Your task to perform on an android device: install app "Google Play Music" Image 0: 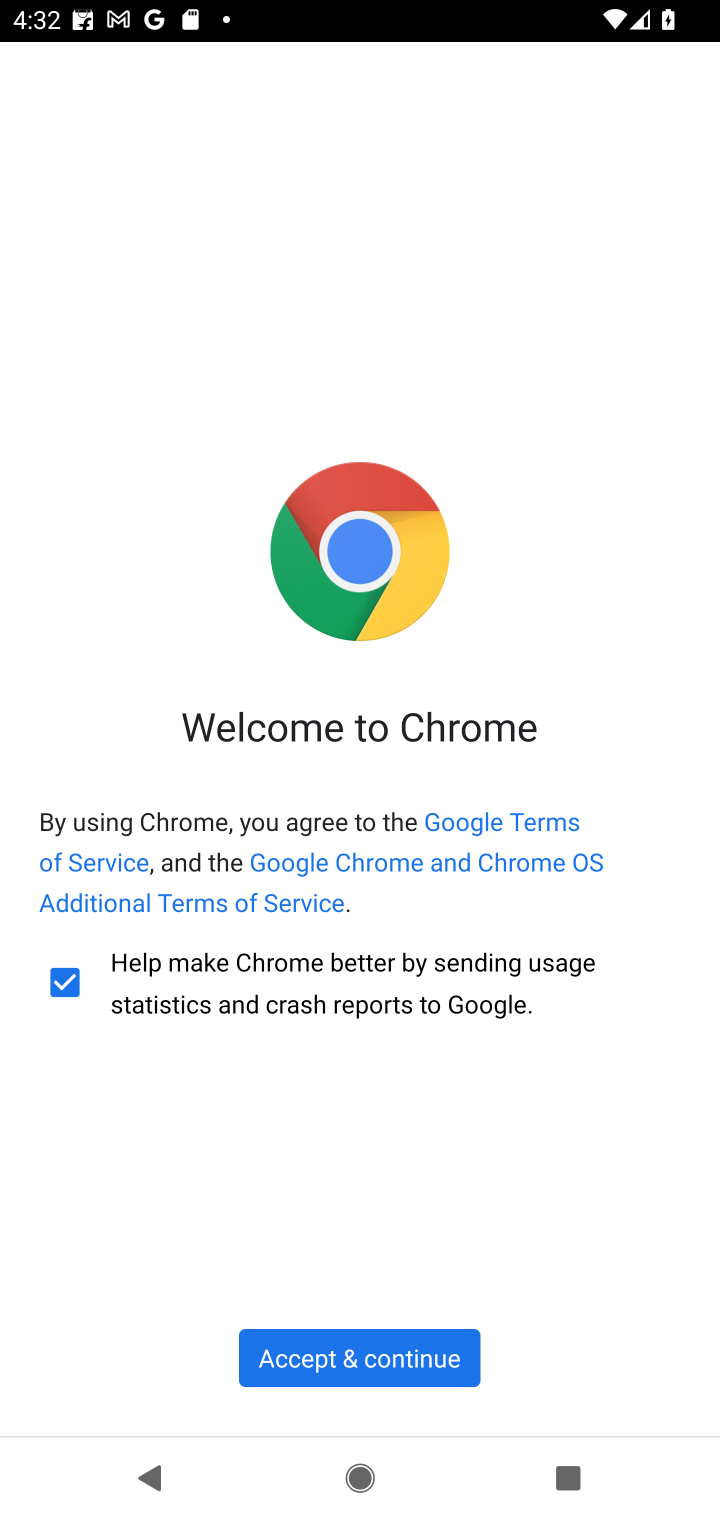
Step 0: press home button
Your task to perform on an android device: install app "Google Play Music" Image 1: 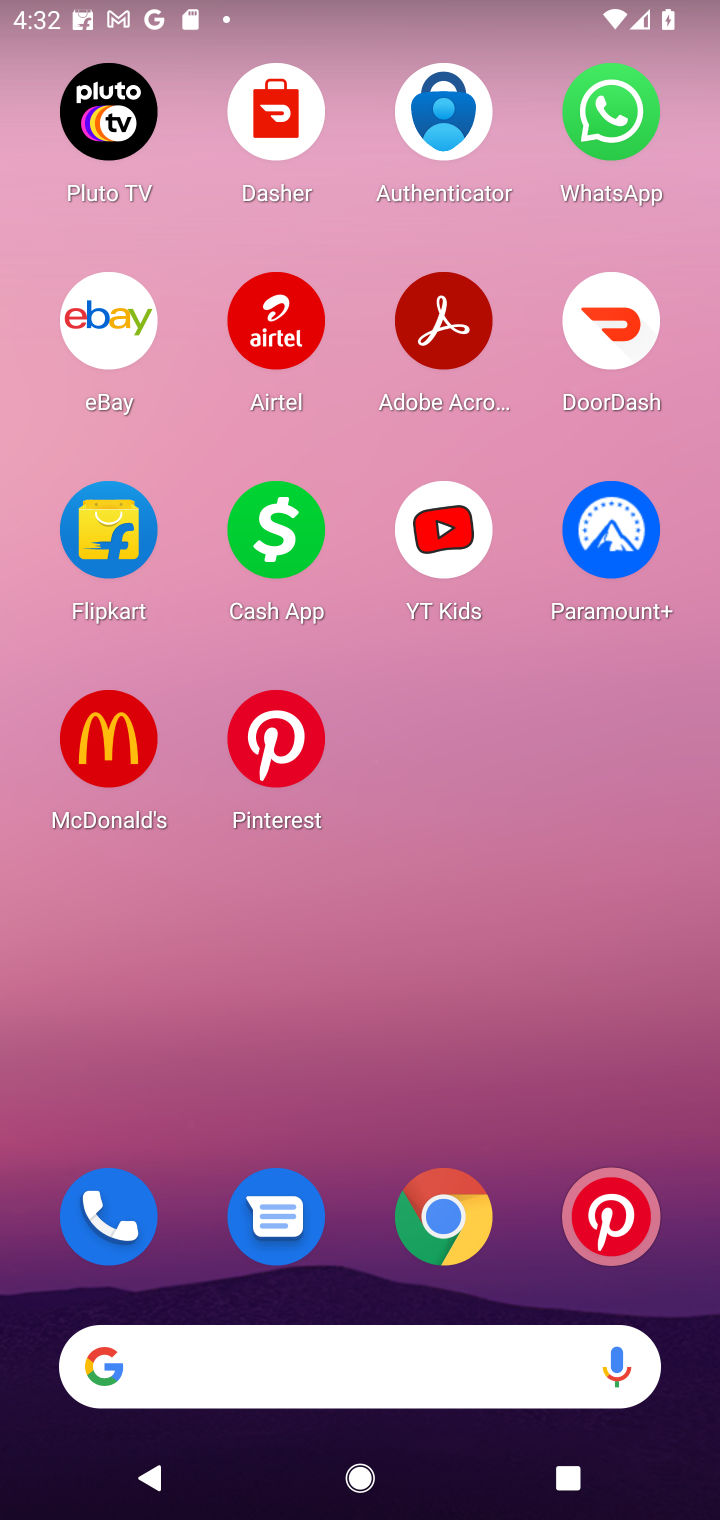
Step 1: drag from (408, 964) to (501, 75)
Your task to perform on an android device: install app "Google Play Music" Image 2: 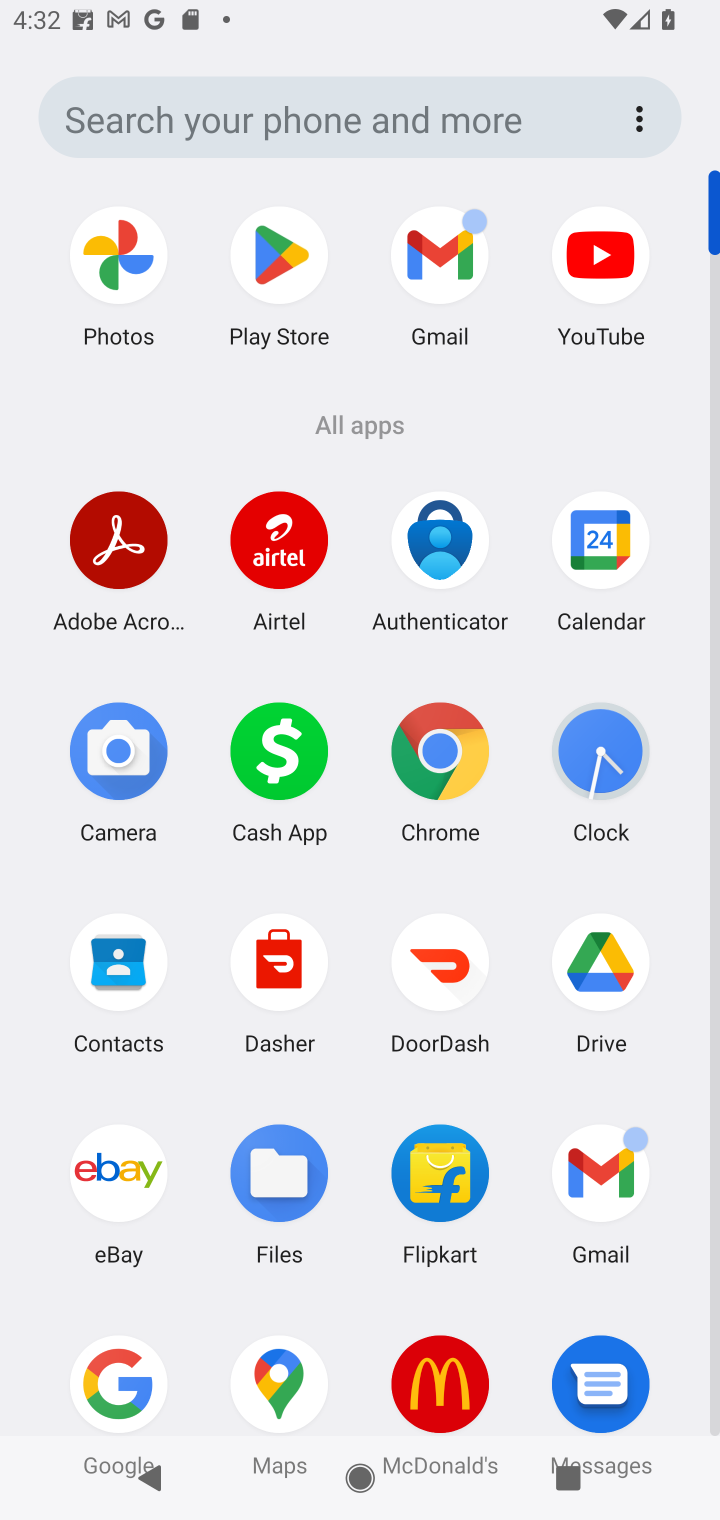
Step 2: click (299, 261)
Your task to perform on an android device: install app "Google Play Music" Image 3: 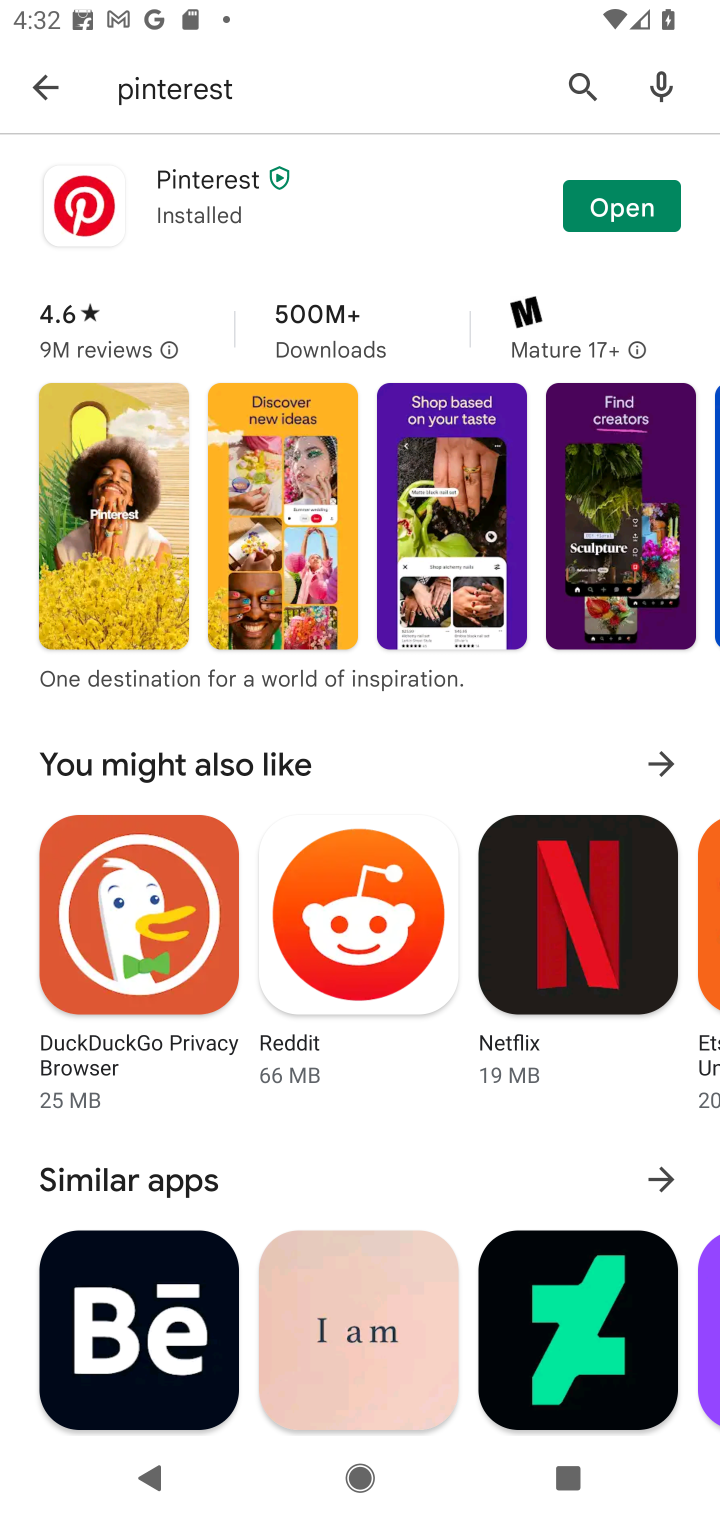
Step 3: click (570, 75)
Your task to perform on an android device: install app "Google Play Music" Image 4: 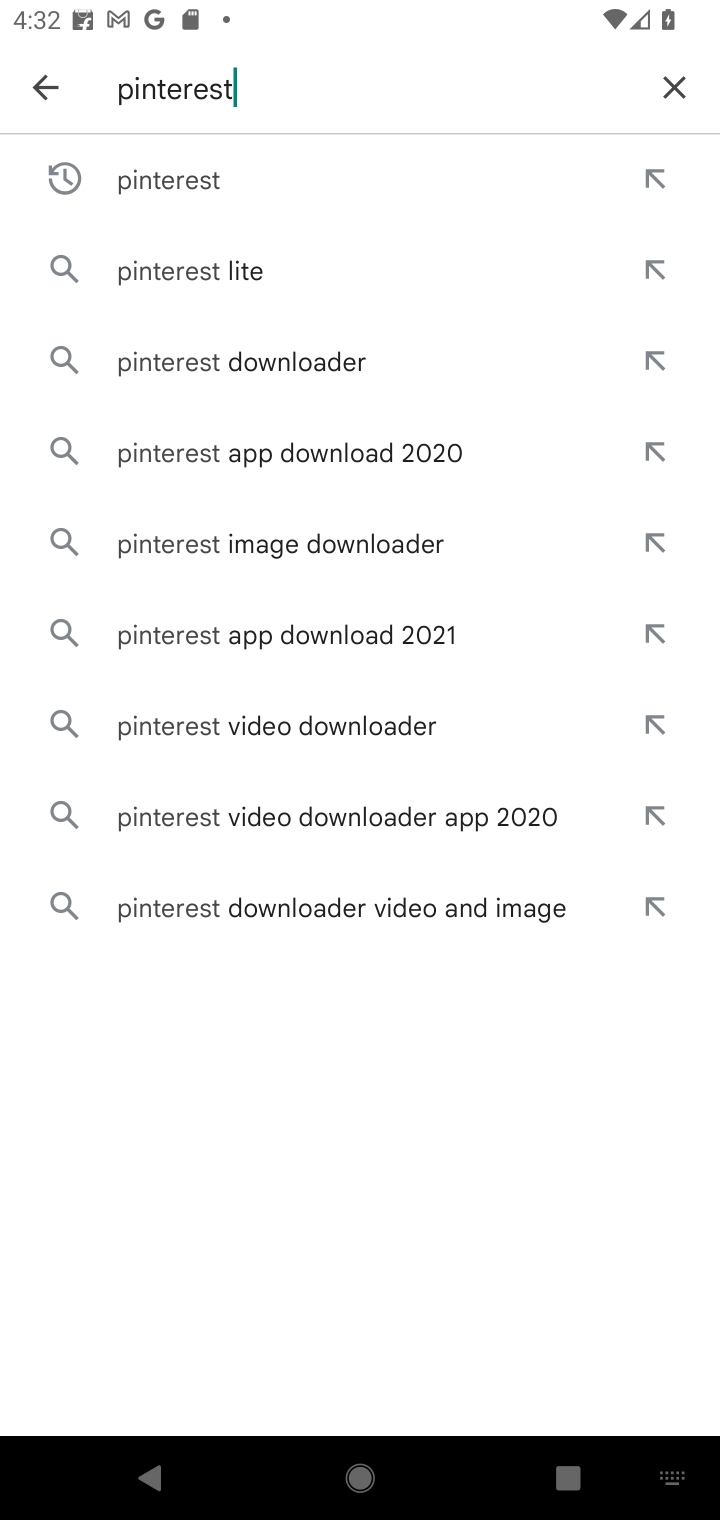
Step 4: click (678, 80)
Your task to perform on an android device: install app "Google Play Music" Image 5: 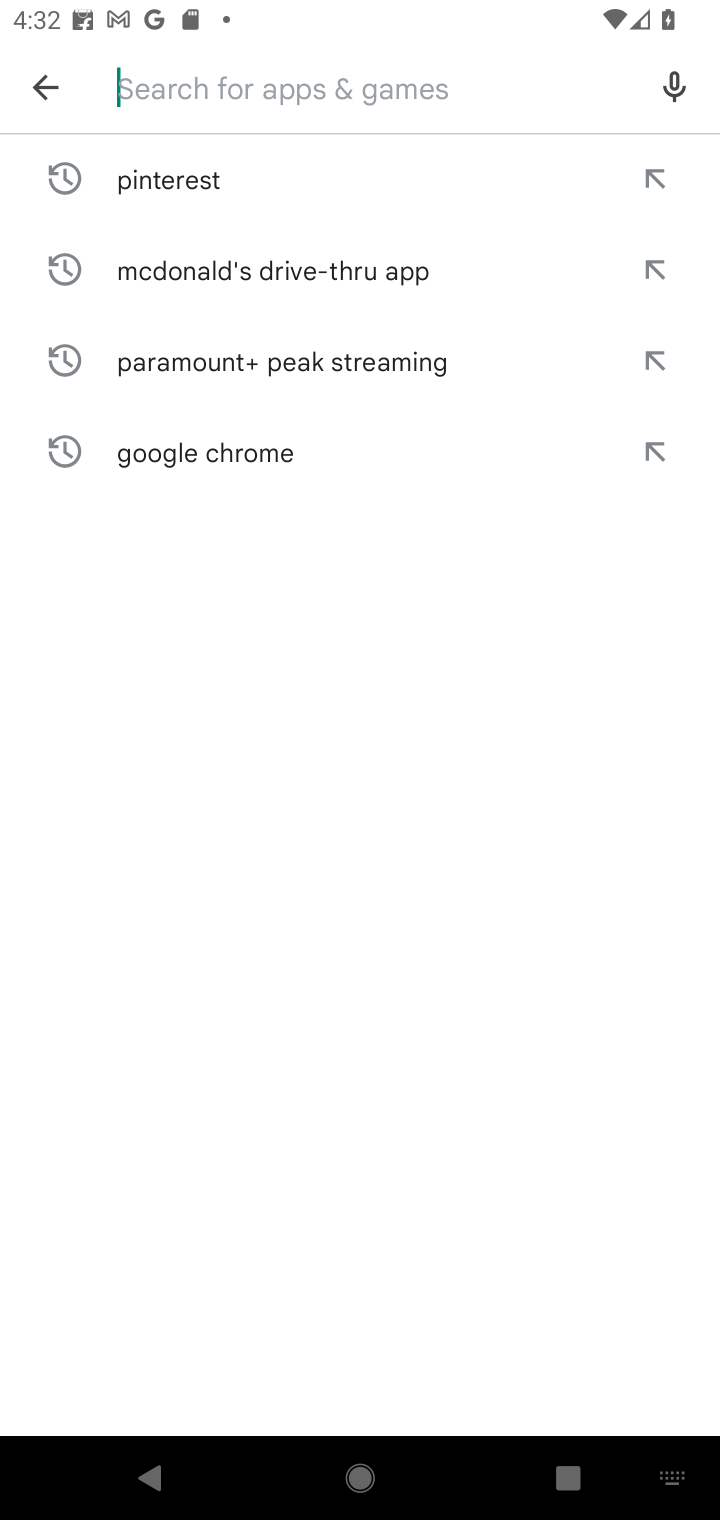
Step 5: type "Google Play Music"
Your task to perform on an android device: install app "Google Play Music" Image 6: 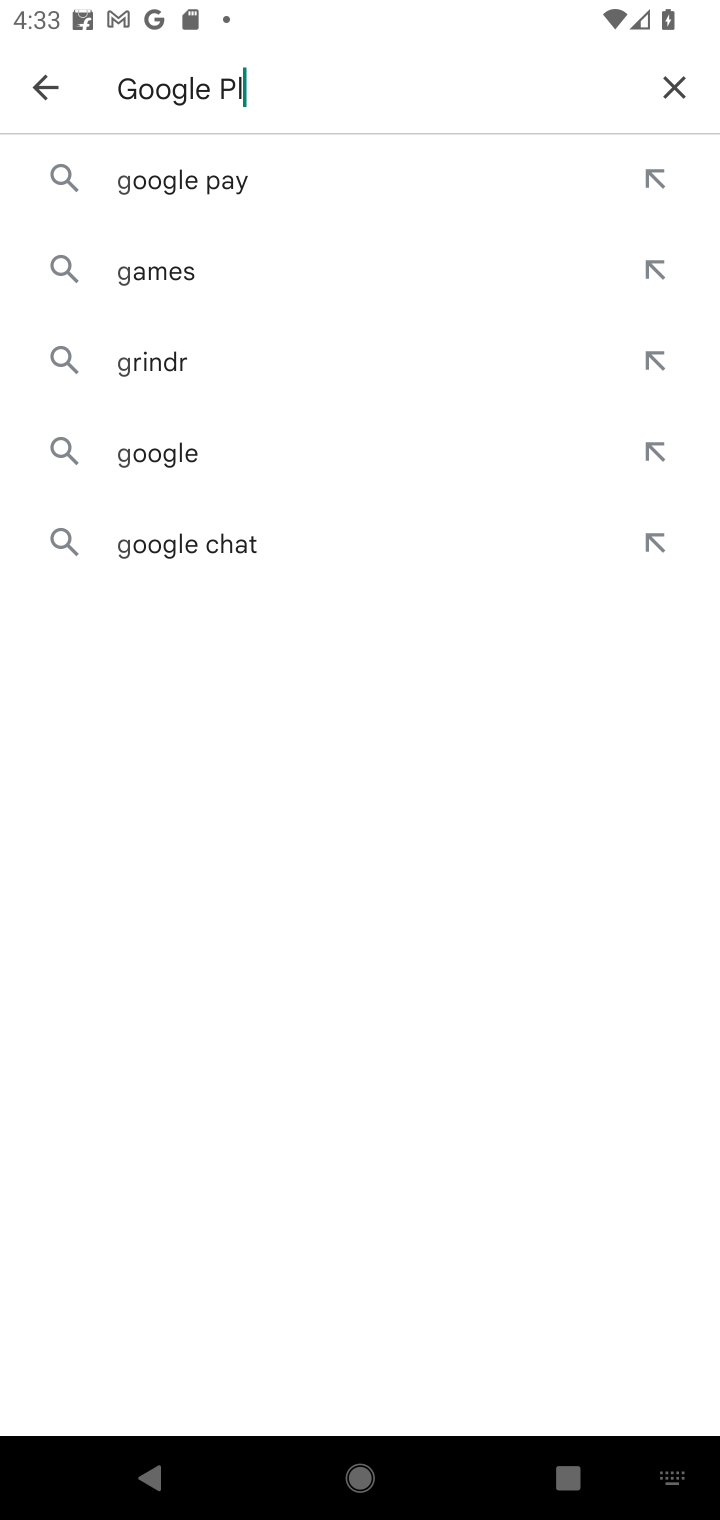
Step 6: type ""
Your task to perform on an android device: install app "Google Play Music" Image 7: 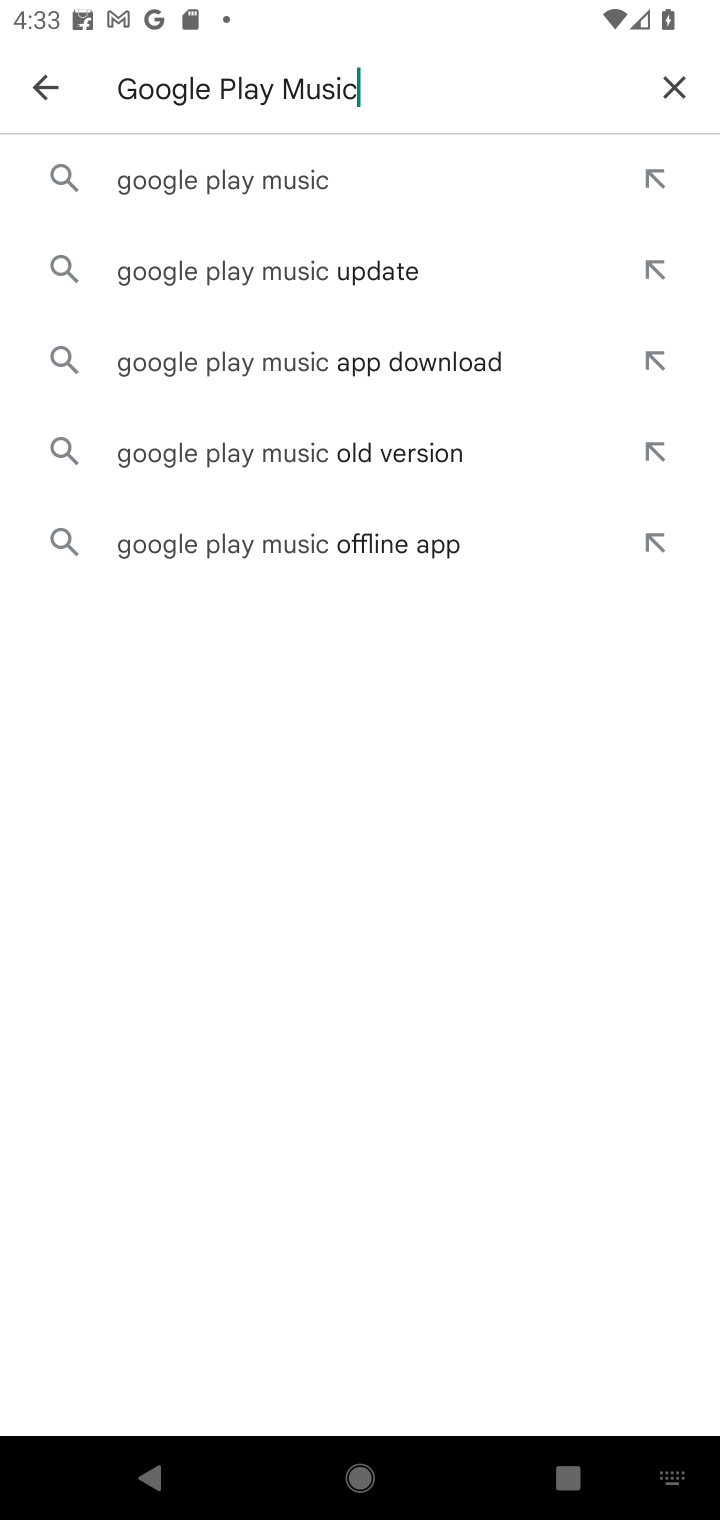
Step 7: click (259, 177)
Your task to perform on an android device: install app "Google Play Music" Image 8: 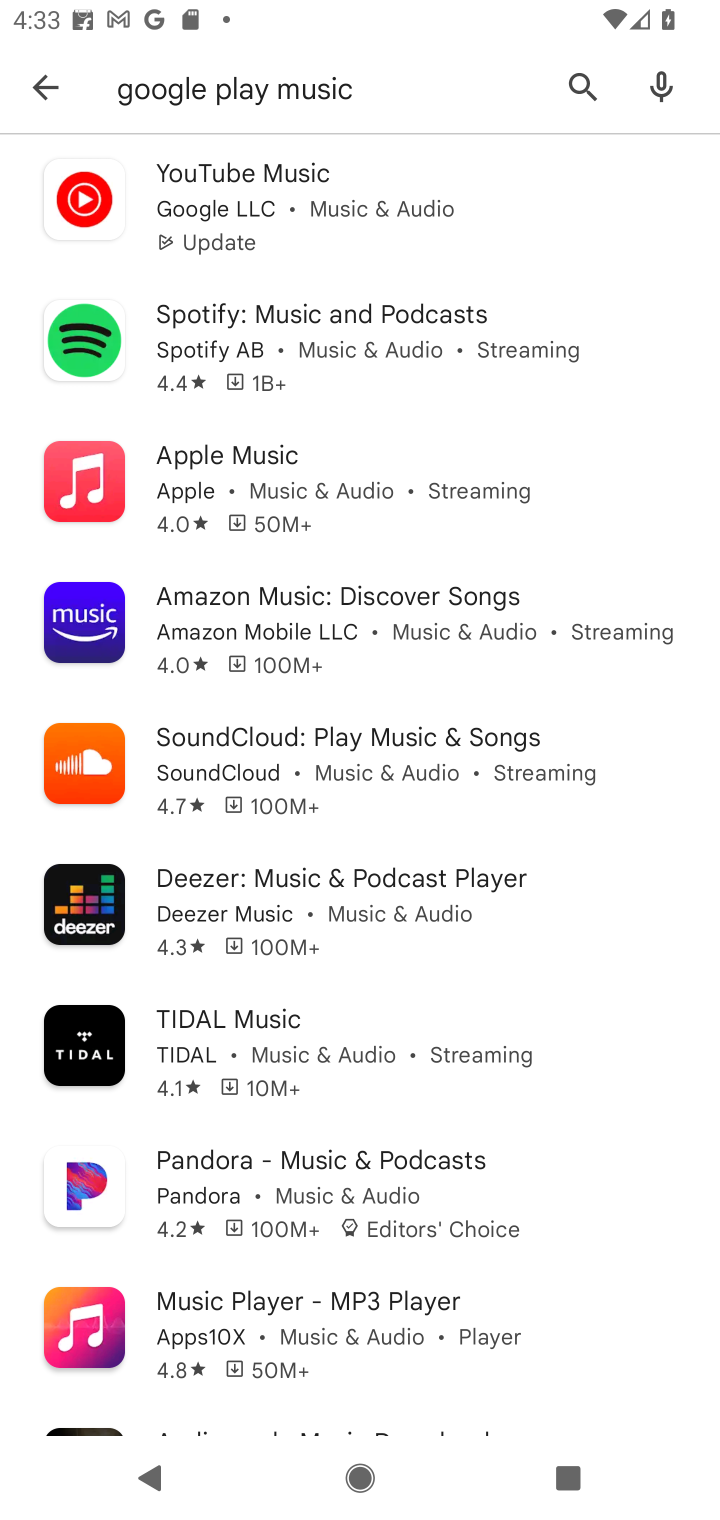
Step 8: task complete